Your task to perform on an android device: toggle improve location accuracy Image 0: 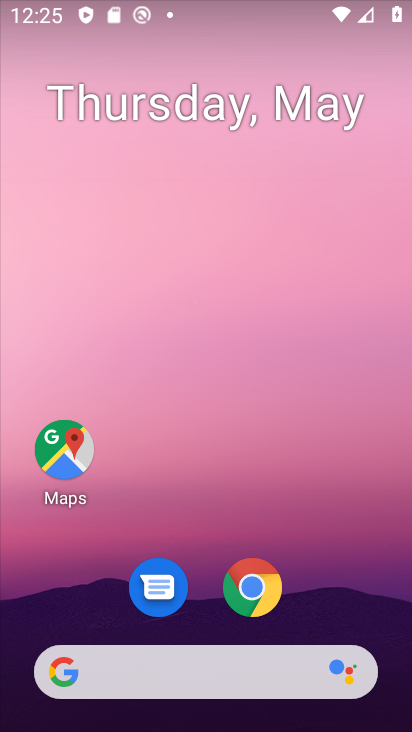
Step 0: drag from (244, 612) to (259, 203)
Your task to perform on an android device: toggle improve location accuracy Image 1: 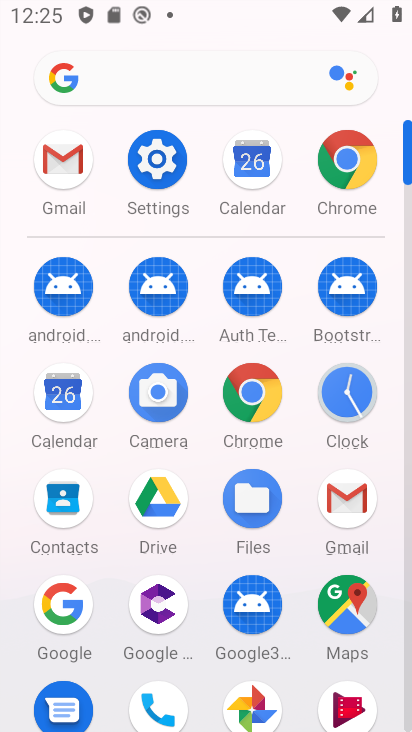
Step 1: click (156, 164)
Your task to perform on an android device: toggle improve location accuracy Image 2: 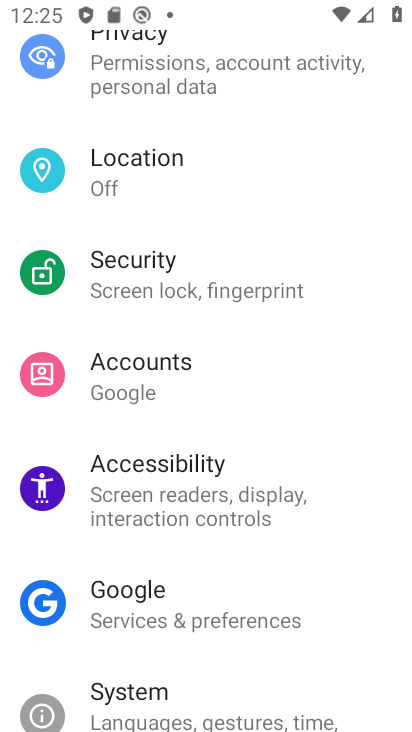
Step 2: click (175, 183)
Your task to perform on an android device: toggle improve location accuracy Image 3: 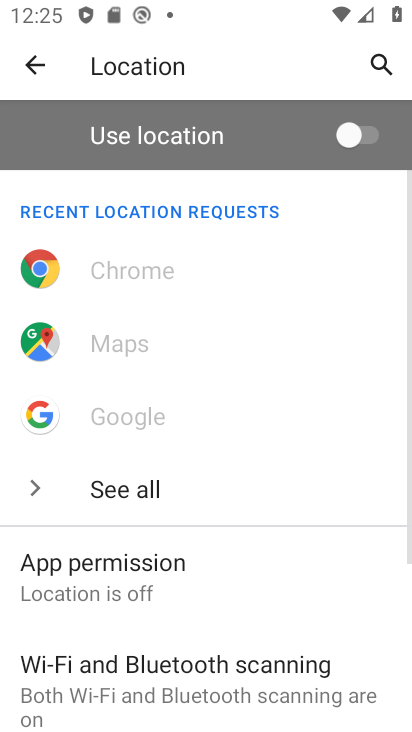
Step 3: drag from (255, 627) to (281, 113)
Your task to perform on an android device: toggle improve location accuracy Image 4: 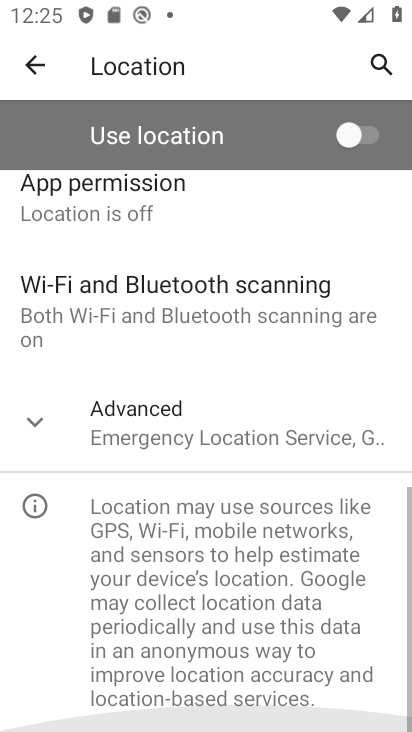
Step 4: click (215, 452)
Your task to perform on an android device: toggle improve location accuracy Image 5: 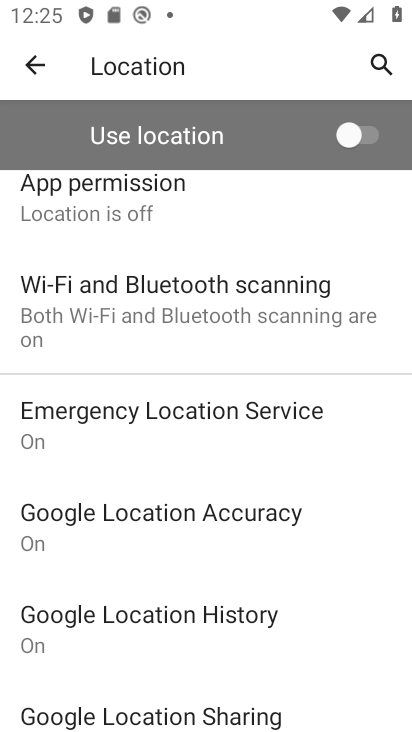
Step 5: click (236, 519)
Your task to perform on an android device: toggle improve location accuracy Image 6: 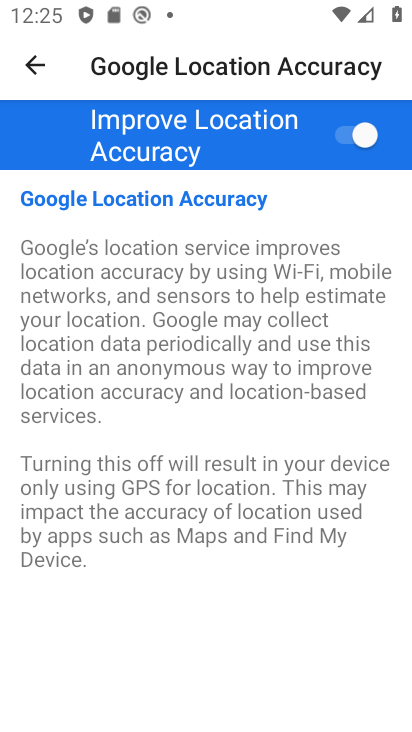
Step 6: click (341, 143)
Your task to perform on an android device: toggle improve location accuracy Image 7: 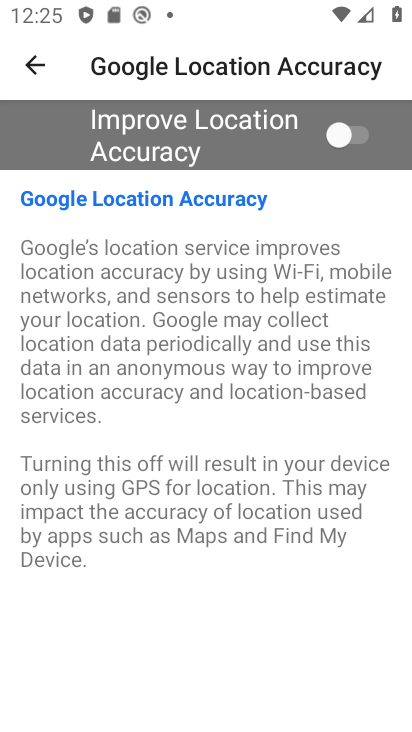
Step 7: task complete